Your task to perform on an android device: Set the phone to "Do not disturb". Image 0: 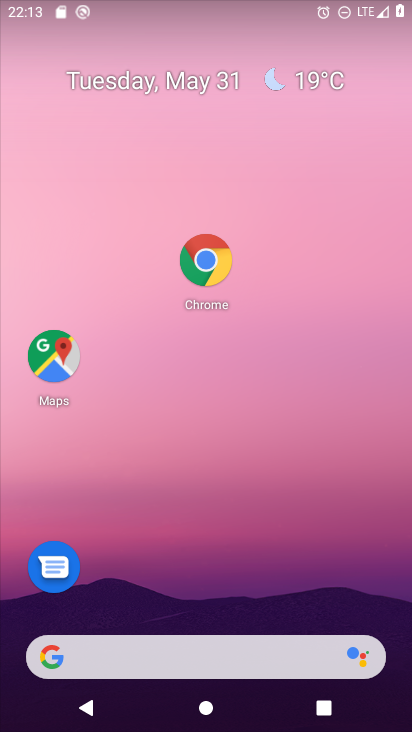
Step 0: drag from (183, 643) to (228, 246)
Your task to perform on an android device: Set the phone to "Do not disturb". Image 1: 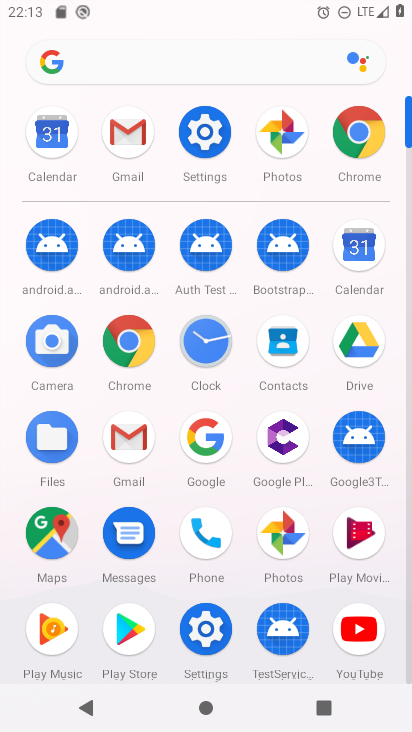
Step 1: click (198, 141)
Your task to perform on an android device: Set the phone to "Do not disturb". Image 2: 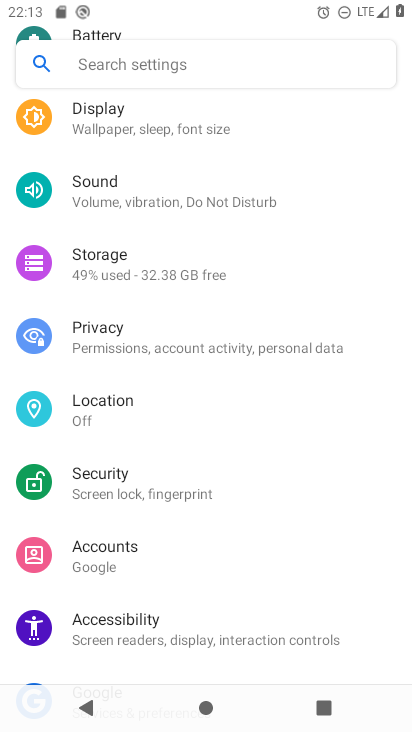
Step 2: click (205, 211)
Your task to perform on an android device: Set the phone to "Do not disturb". Image 3: 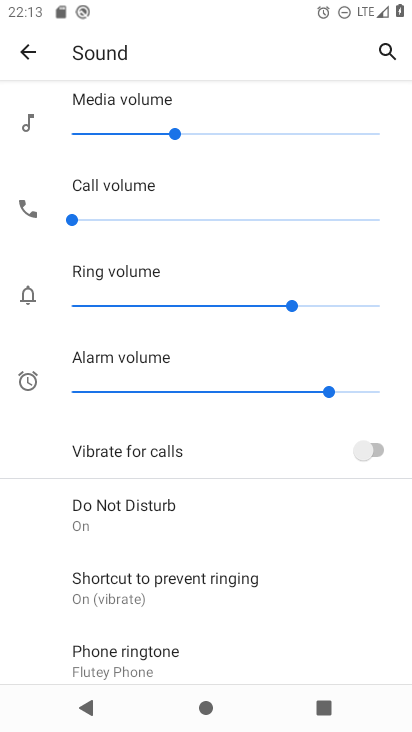
Step 3: click (140, 514)
Your task to perform on an android device: Set the phone to "Do not disturb". Image 4: 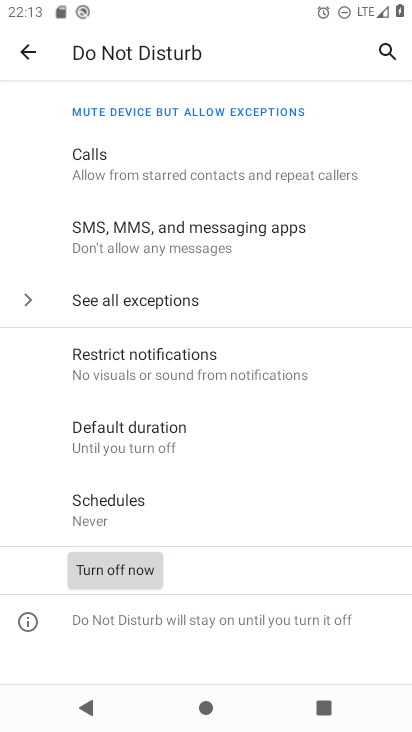
Step 4: task complete